Your task to perform on an android device: turn off location history Image 0: 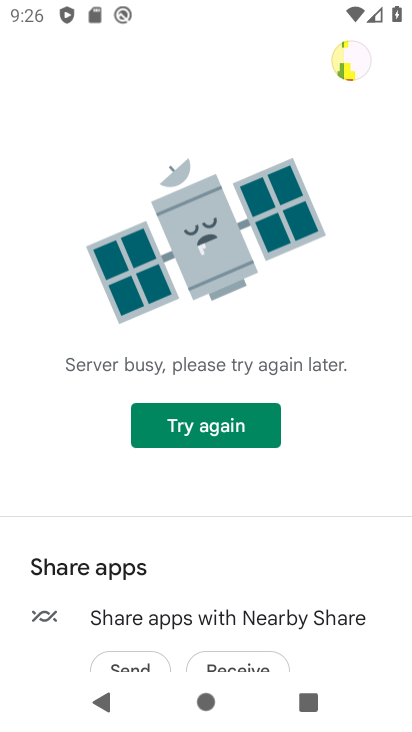
Step 0: press home button
Your task to perform on an android device: turn off location history Image 1: 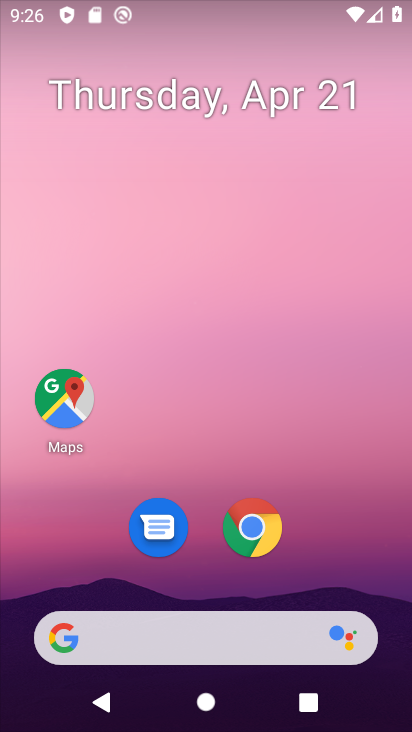
Step 1: drag from (360, 503) to (275, 643)
Your task to perform on an android device: turn off location history Image 2: 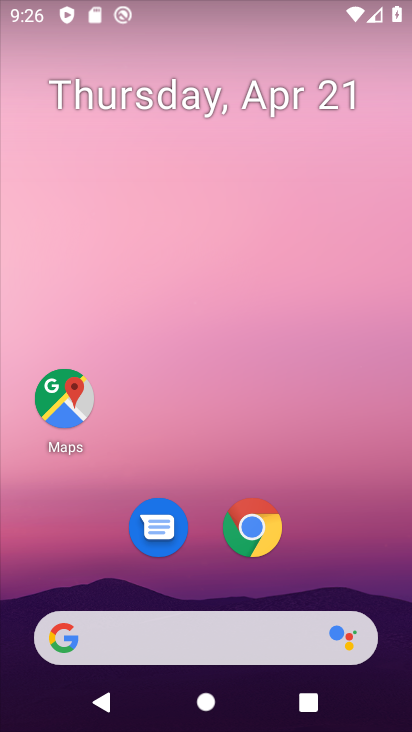
Step 2: drag from (337, 92) to (327, 20)
Your task to perform on an android device: turn off location history Image 3: 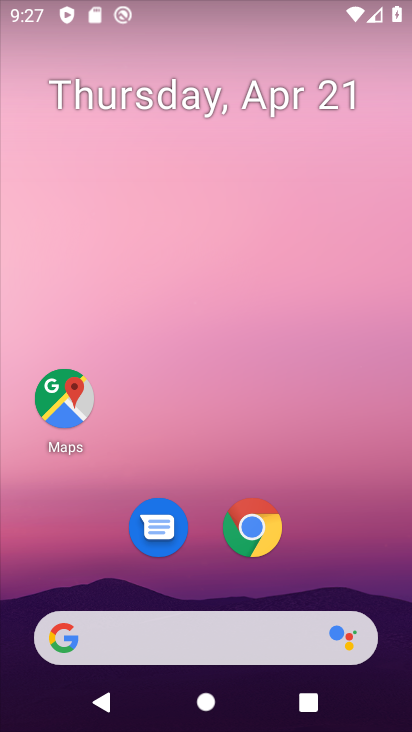
Step 3: click (42, 397)
Your task to perform on an android device: turn off location history Image 4: 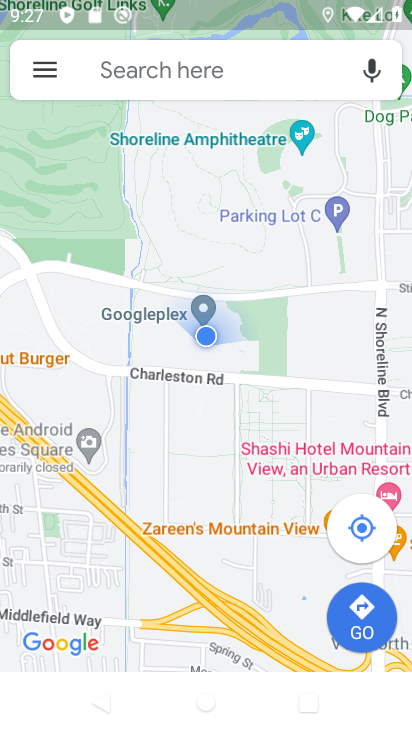
Step 4: click (54, 56)
Your task to perform on an android device: turn off location history Image 5: 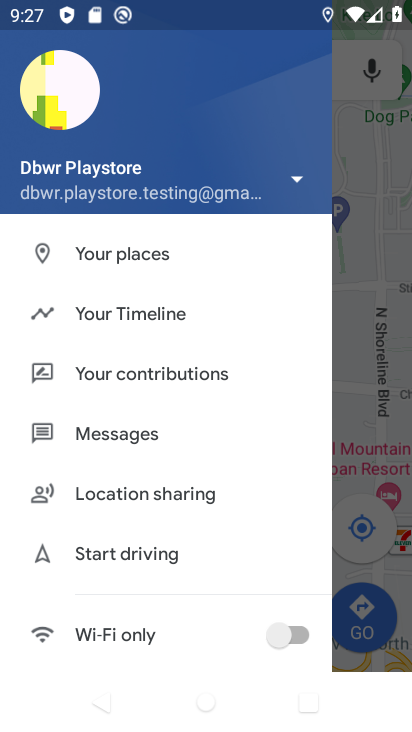
Step 5: click (168, 318)
Your task to perform on an android device: turn off location history Image 6: 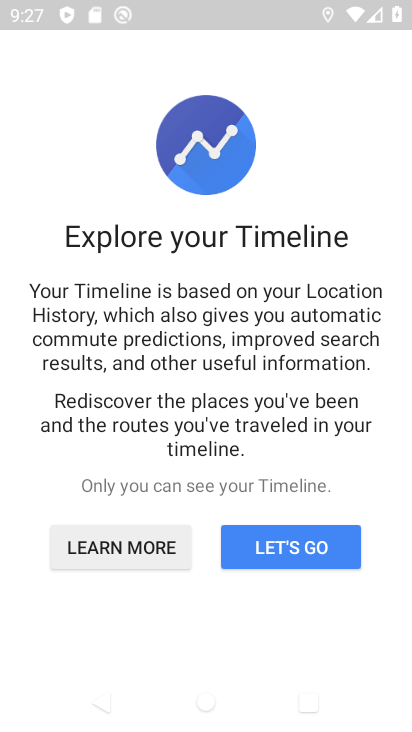
Step 6: click (279, 552)
Your task to perform on an android device: turn off location history Image 7: 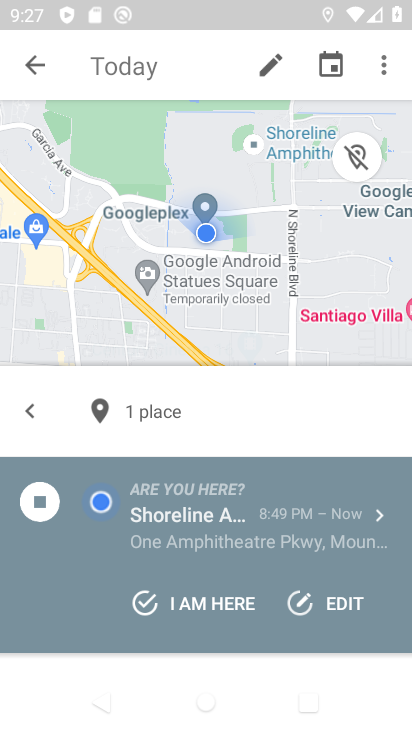
Step 7: click (377, 70)
Your task to perform on an android device: turn off location history Image 8: 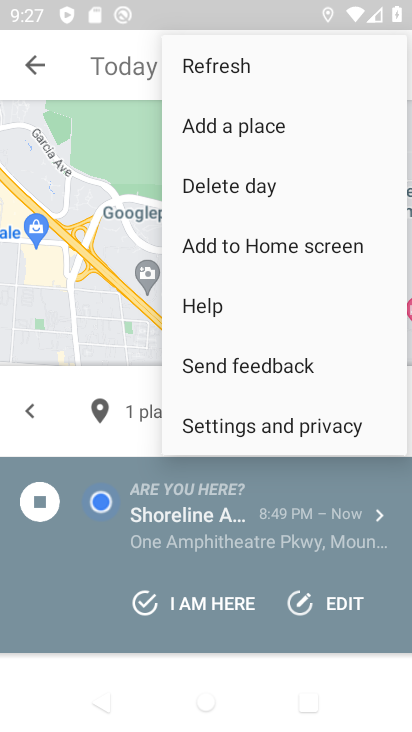
Step 8: click (231, 425)
Your task to perform on an android device: turn off location history Image 9: 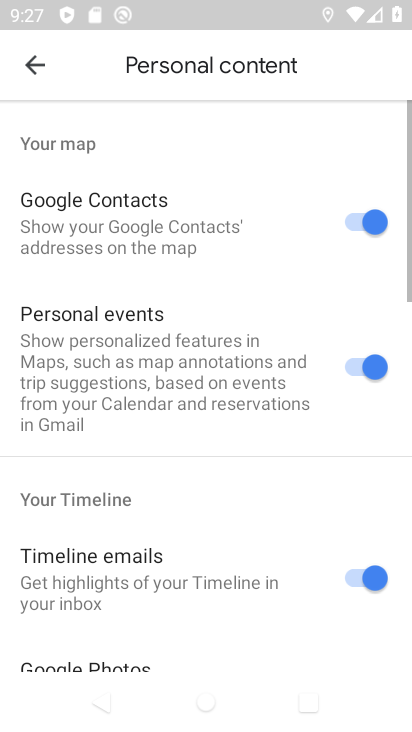
Step 9: drag from (213, 488) to (159, 79)
Your task to perform on an android device: turn off location history Image 10: 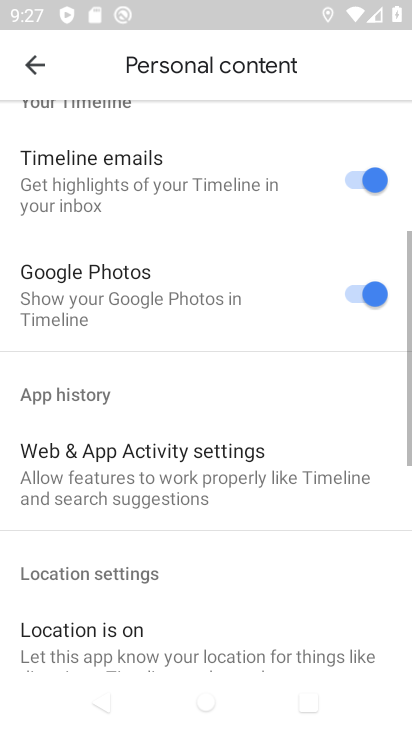
Step 10: drag from (191, 376) to (172, 167)
Your task to perform on an android device: turn off location history Image 11: 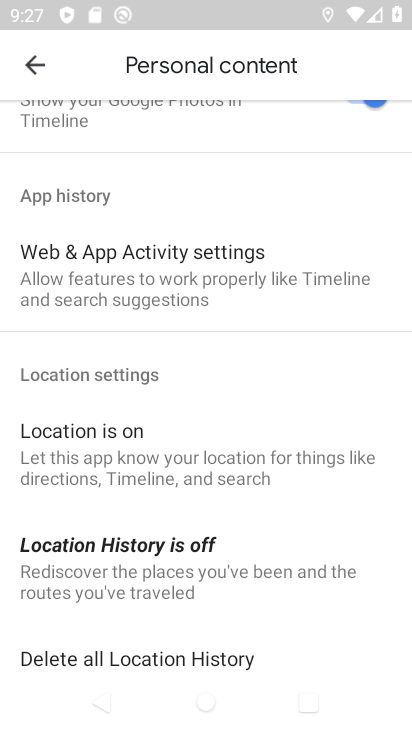
Step 11: click (219, 576)
Your task to perform on an android device: turn off location history Image 12: 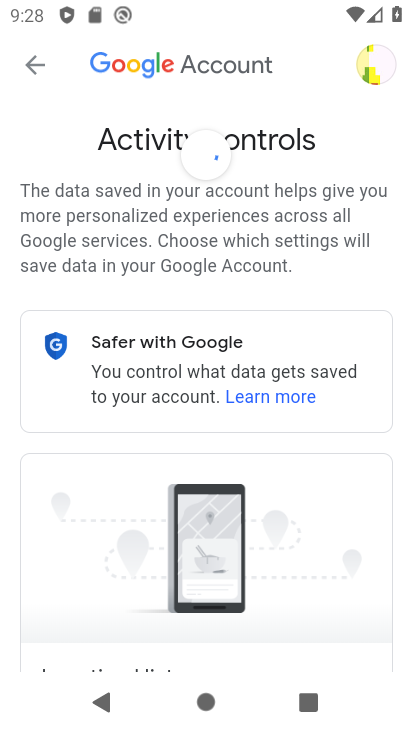
Step 12: task complete